Your task to perform on an android device: turn smart compose on in the gmail app Image 0: 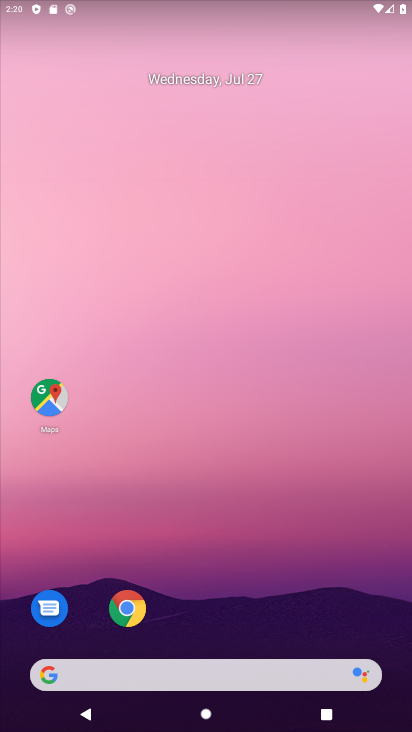
Step 0: drag from (280, 532) to (270, 11)
Your task to perform on an android device: turn smart compose on in the gmail app Image 1: 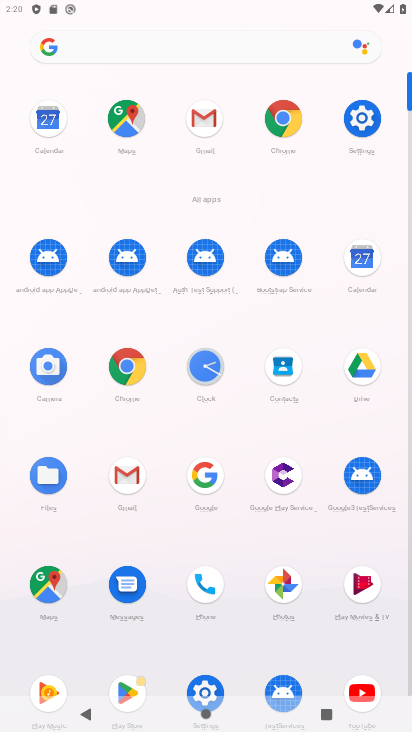
Step 1: click (124, 471)
Your task to perform on an android device: turn smart compose on in the gmail app Image 2: 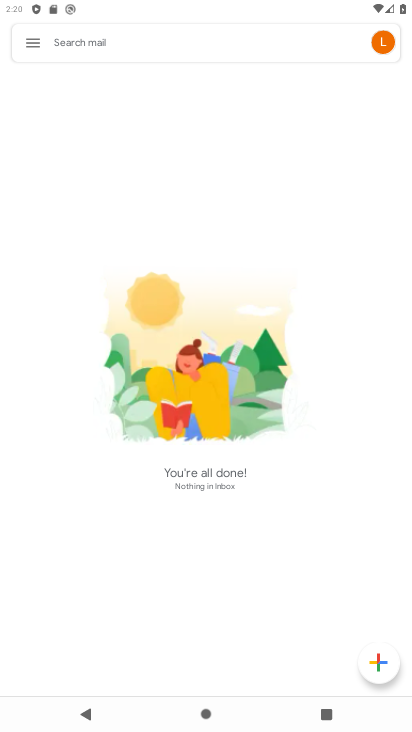
Step 2: task complete